Your task to perform on an android device: add a contact in the contacts app Image 0: 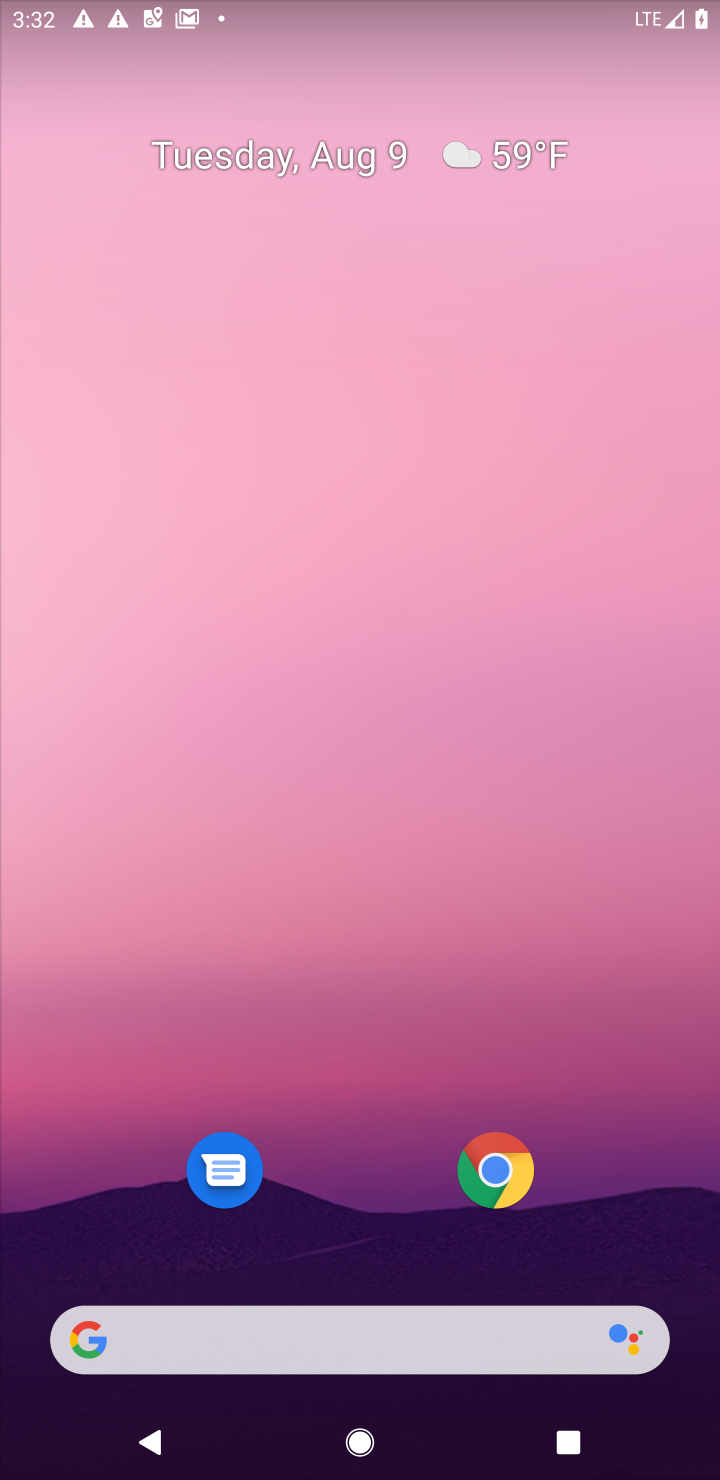
Step 0: press home button
Your task to perform on an android device: add a contact in the contacts app Image 1: 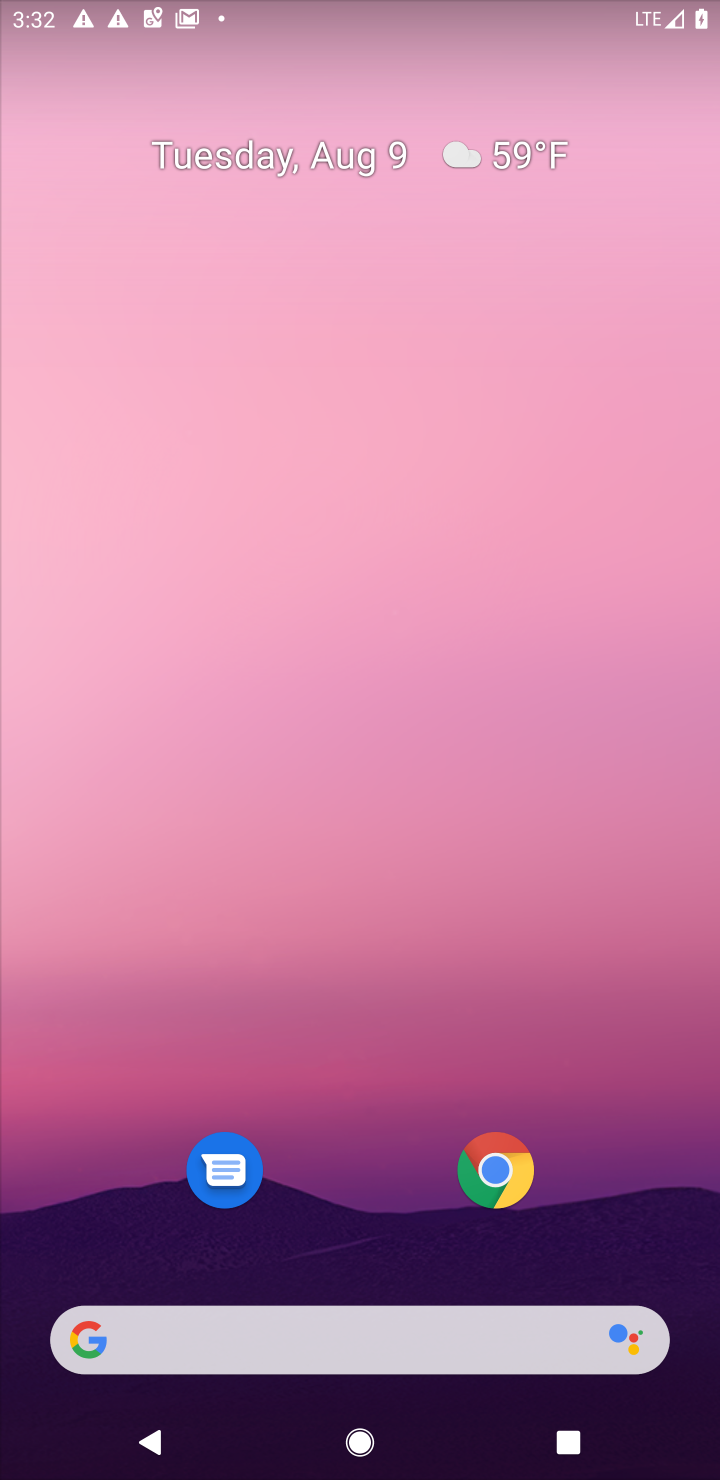
Step 1: drag from (381, 1239) to (325, 51)
Your task to perform on an android device: add a contact in the contacts app Image 2: 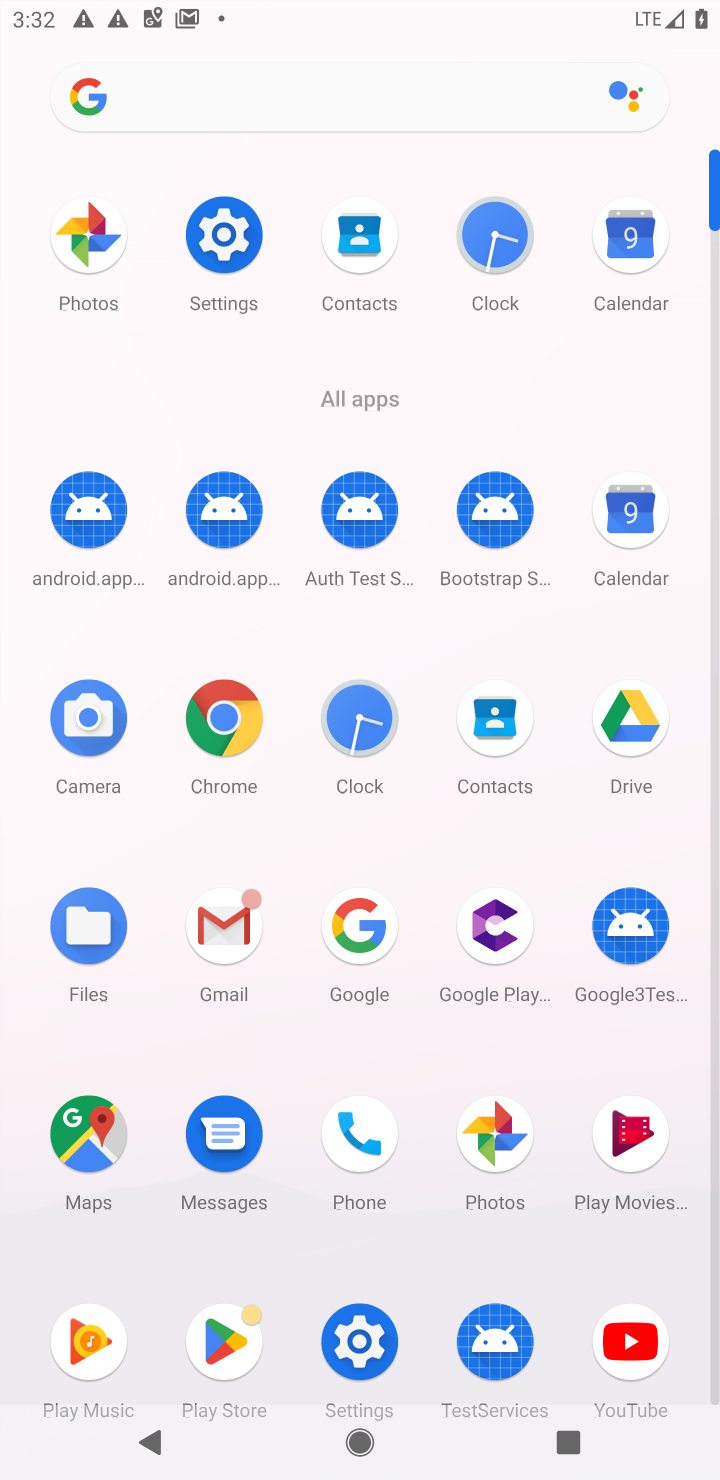
Step 2: click (500, 712)
Your task to perform on an android device: add a contact in the contacts app Image 3: 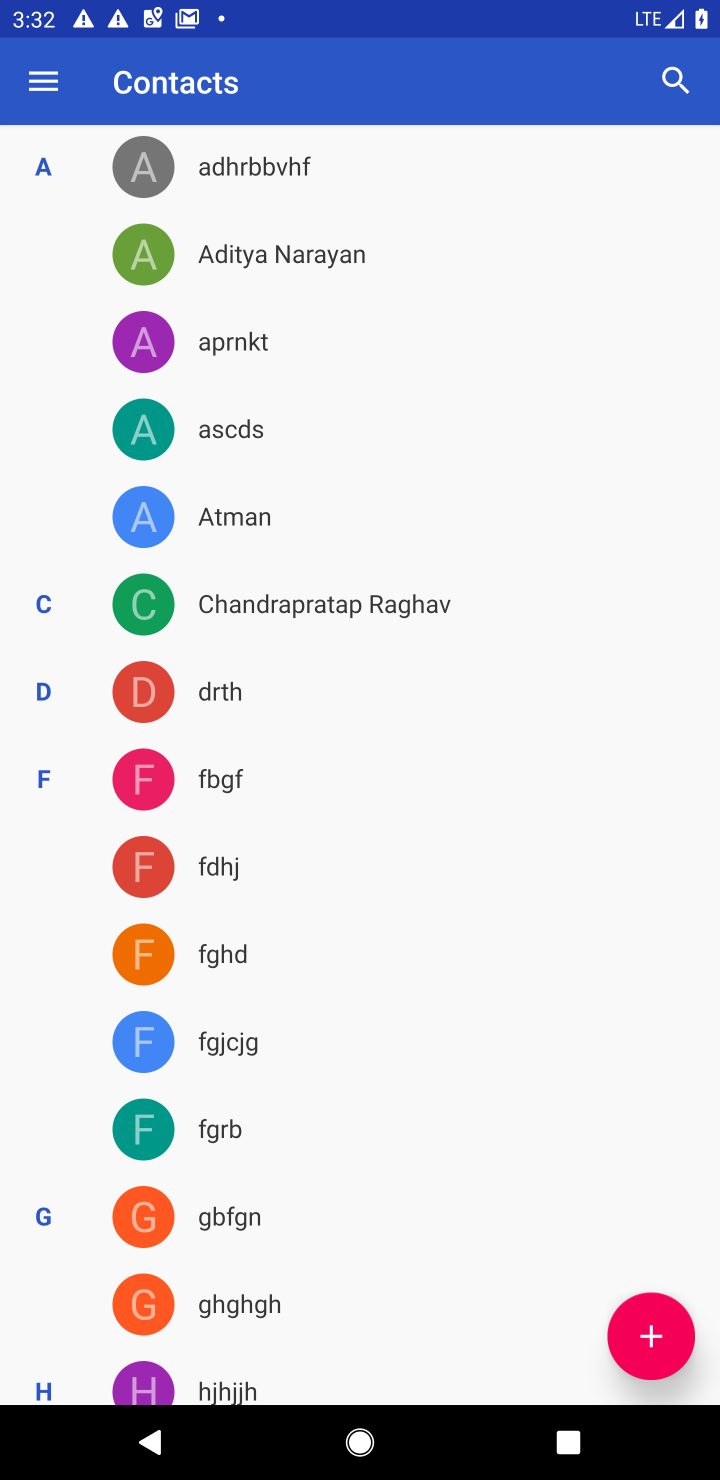
Step 3: click (654, 1336)
Your task to perform on an android device: add a contact in the contacts app Image 4: 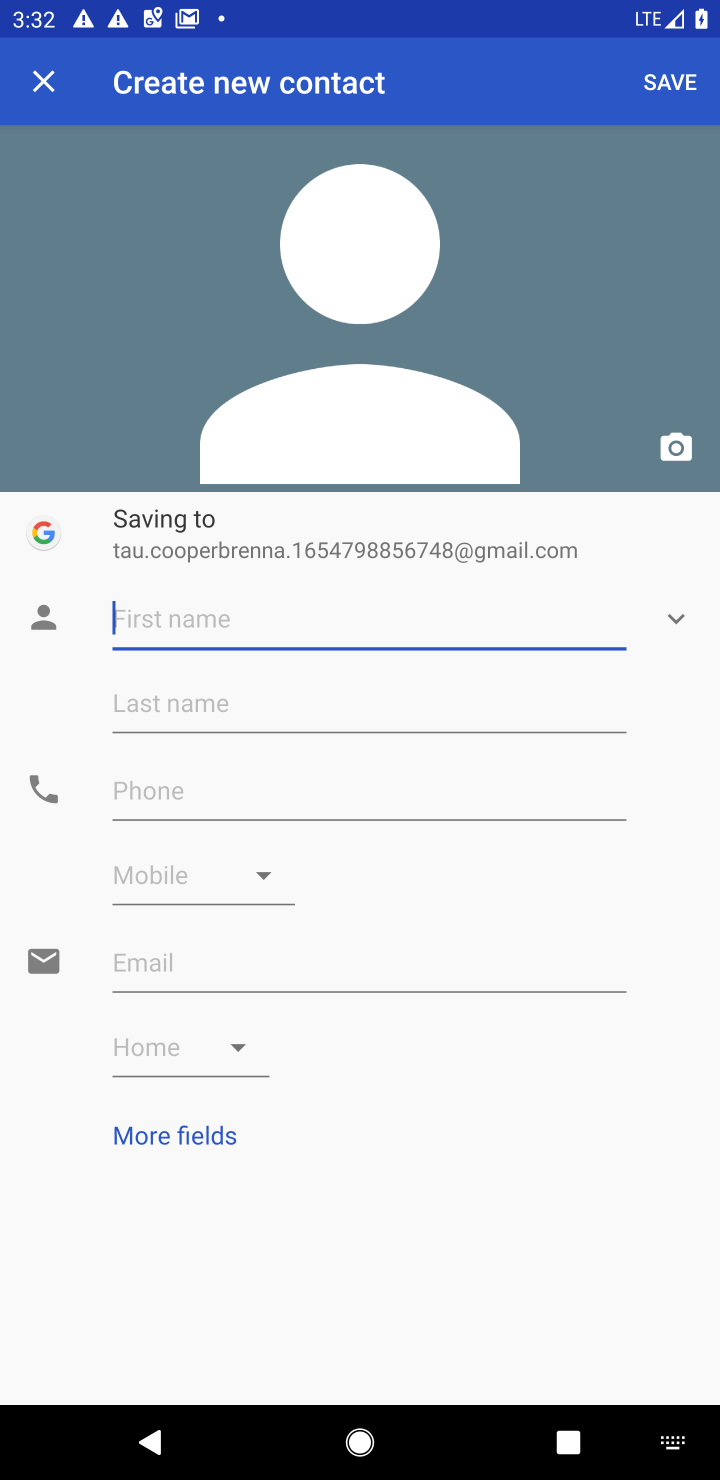
Step 4: type "ghggjgjg"
Your task to perform on an android device: add a contact in the contacts app Image 5: 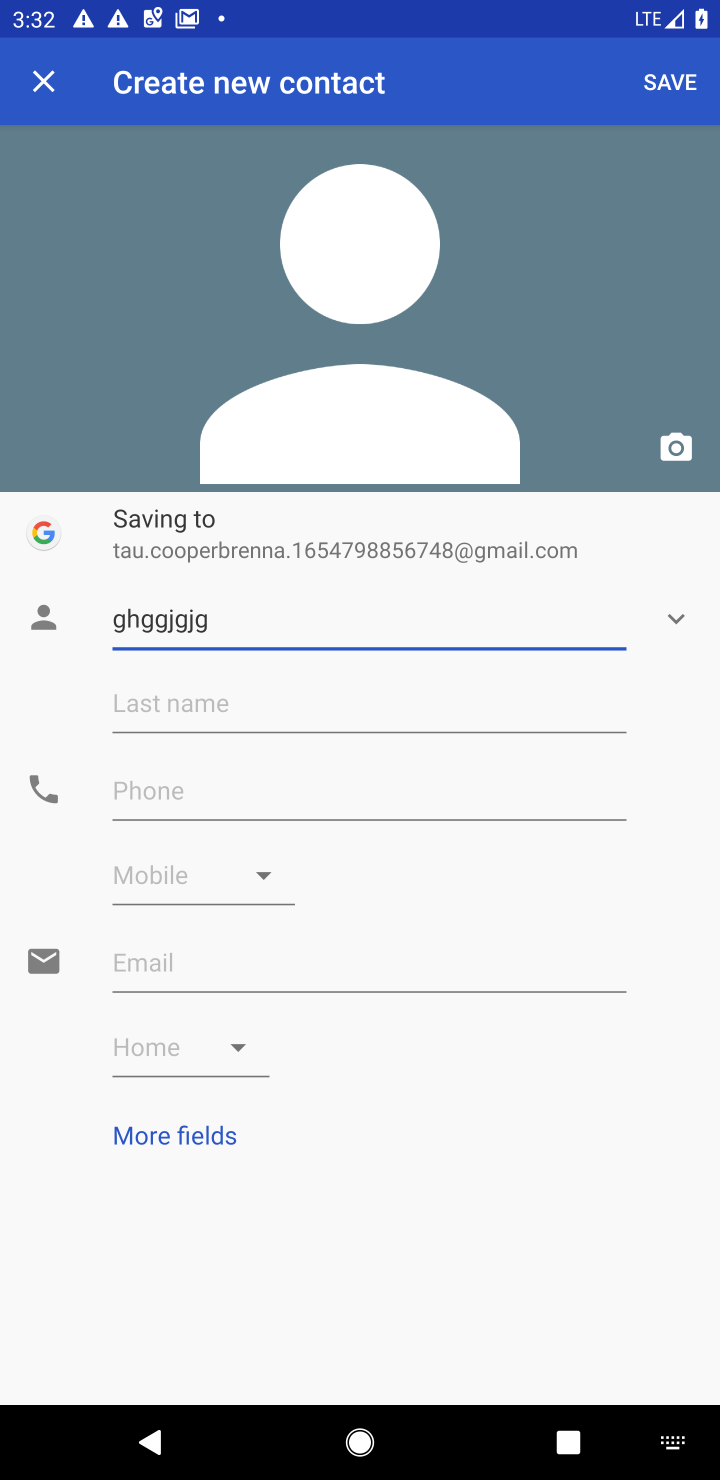
Step 5: click (192, 786)
Your task to perform on an android device: add a contact in the contacts app Image 6: 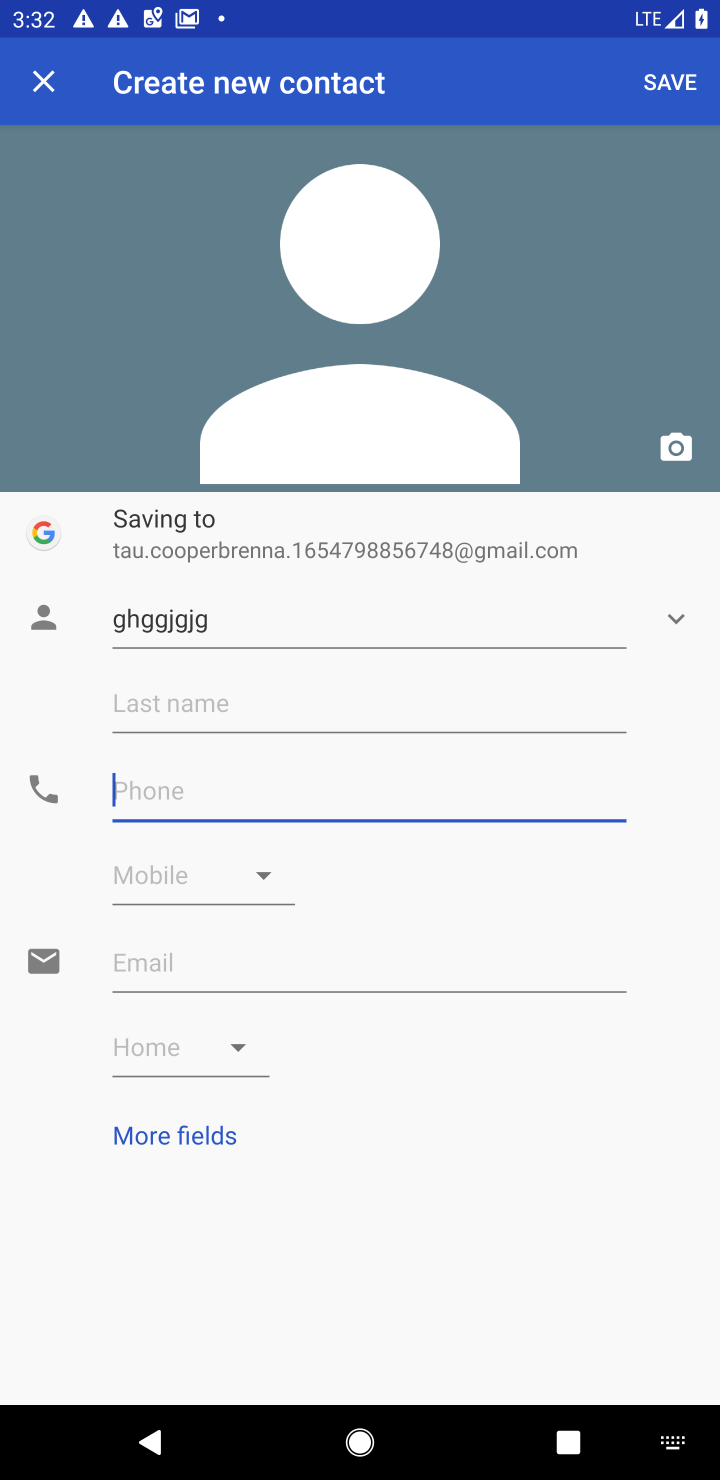
Step 6: type "6686868"
Your task to perform on an android device: add a contact in the contacts app Image 7: 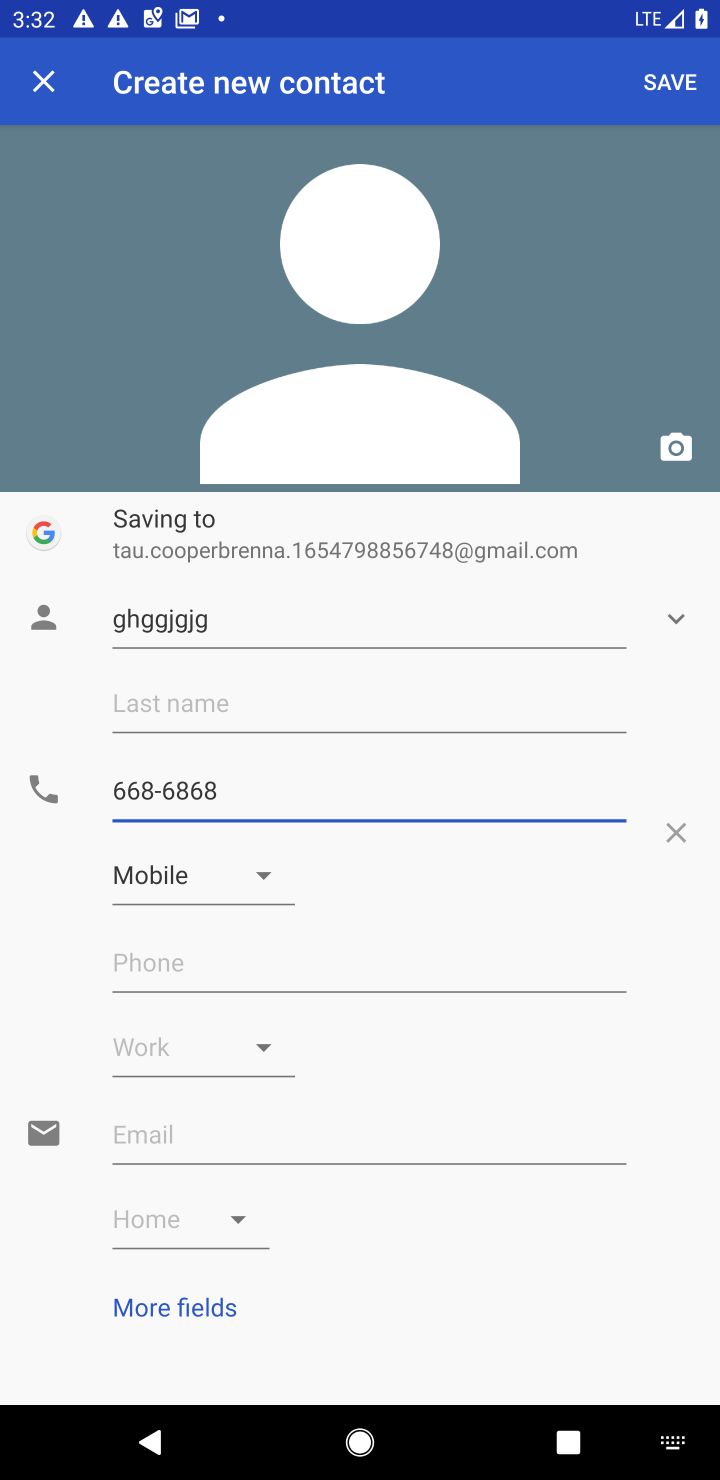
Step 7: click (660, 74)
Your task to perform on an android device: add a contact in the contacts app Image 8: 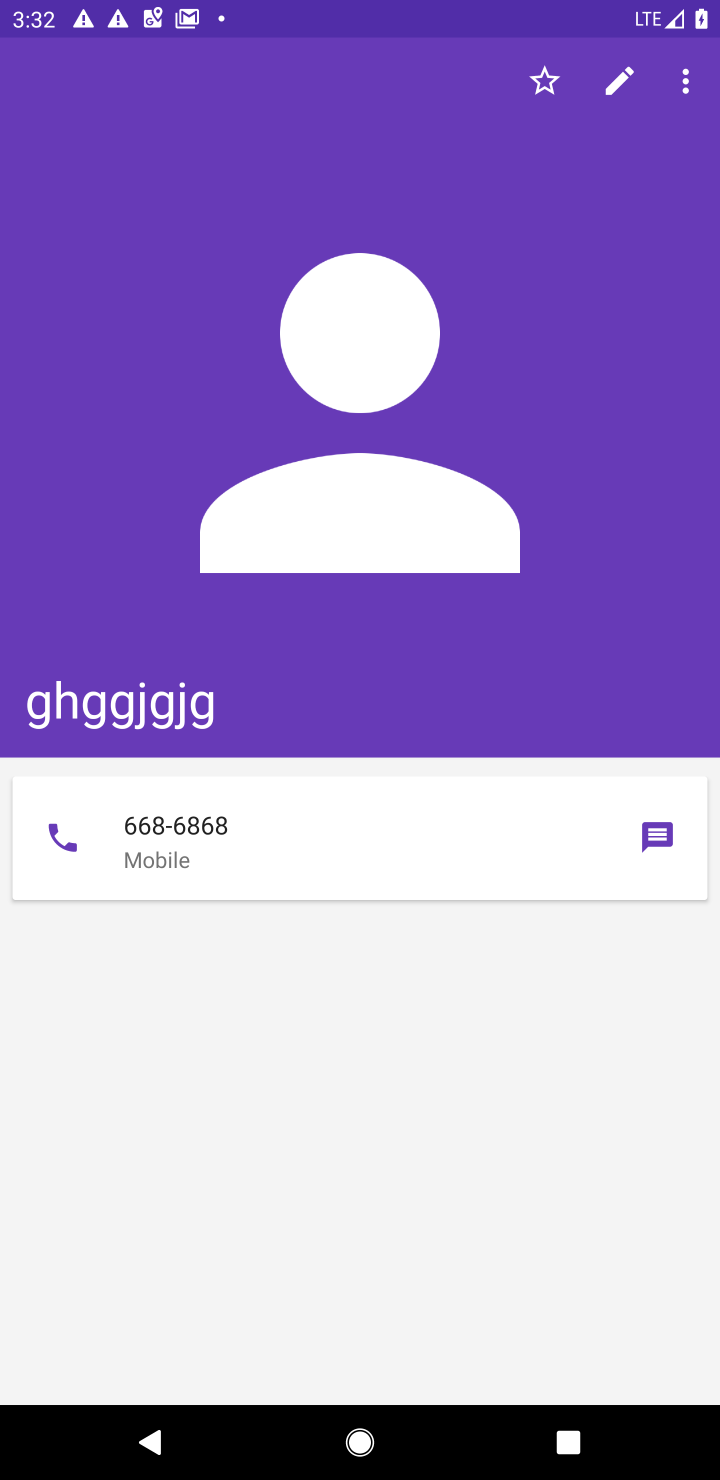
Step 8: task complete